Your task to perform on an android device: Is it going to rain tomorrow? Image 0: 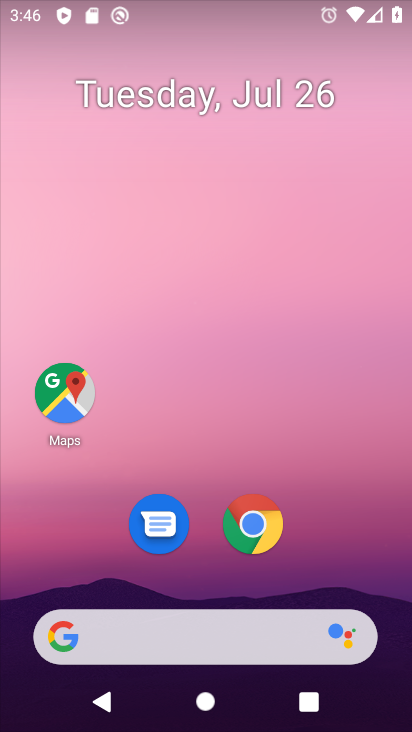
Step 0: click (215, 640)
Your task to perform on an android device: Is it going to rain tomorrow? Image 1: 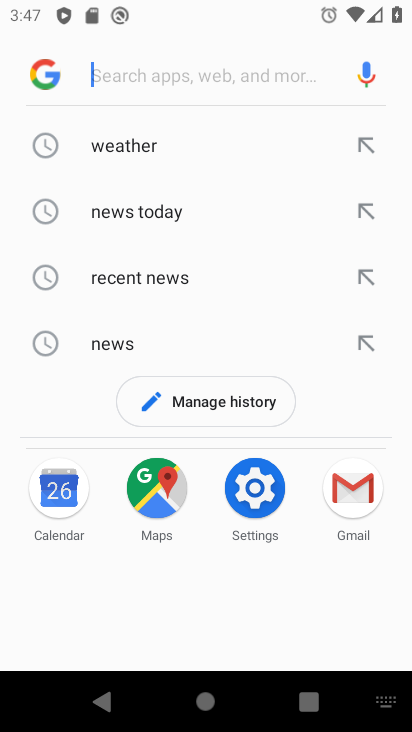
Step 1: click (43, 133)
Your task to perform on an android device: Is it going to rain tomorrow? Image 2: 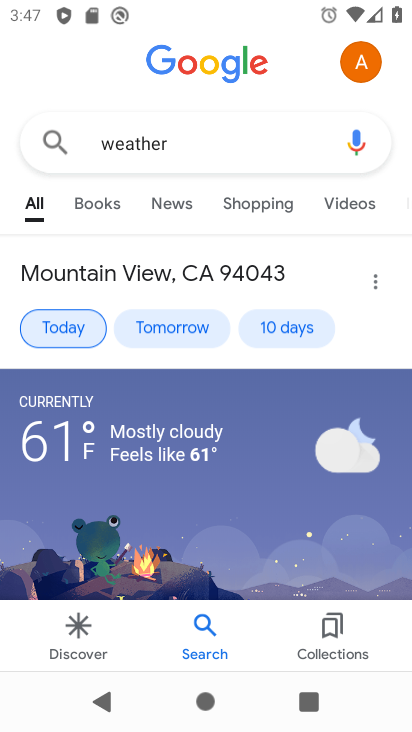
Step 2: click (167, 316)
Your task to perform on an android device: Is it going to rain tomorrow? Image 3: 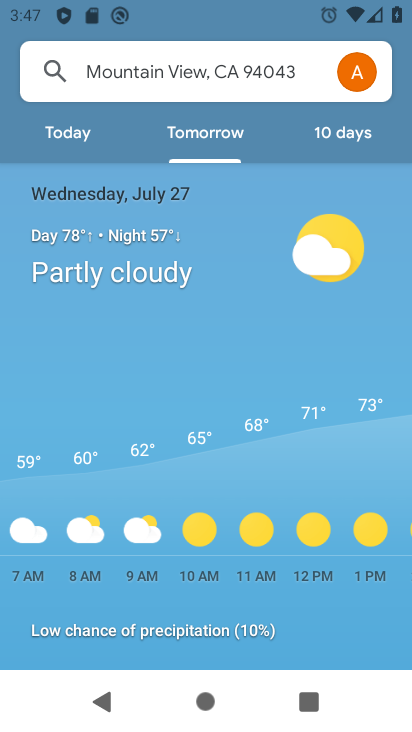
Step 3: task complete